Your task to perform on an android device: delete location history Image 0: 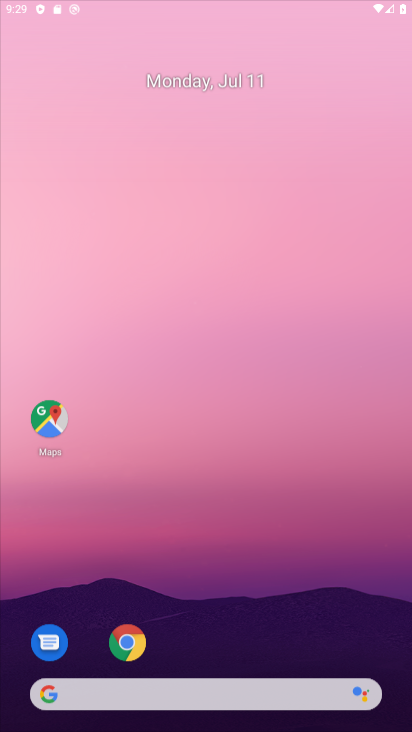
Step 0: press home button
Your task to perform on an android device: delete location history Image 1: 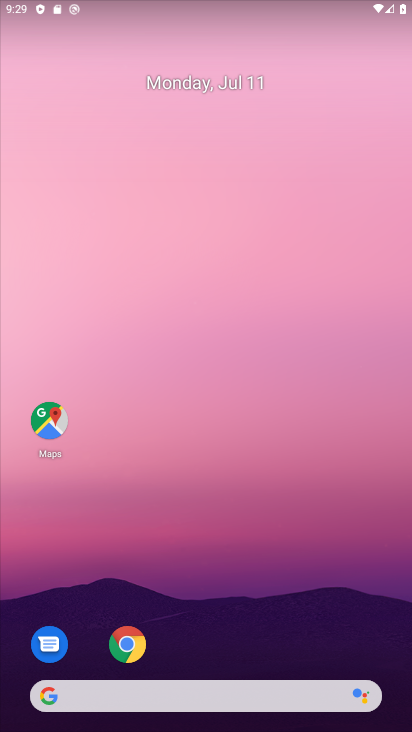
Step 1: click (48, 413)
Your task to perform on an android device: delete location history Image 2: 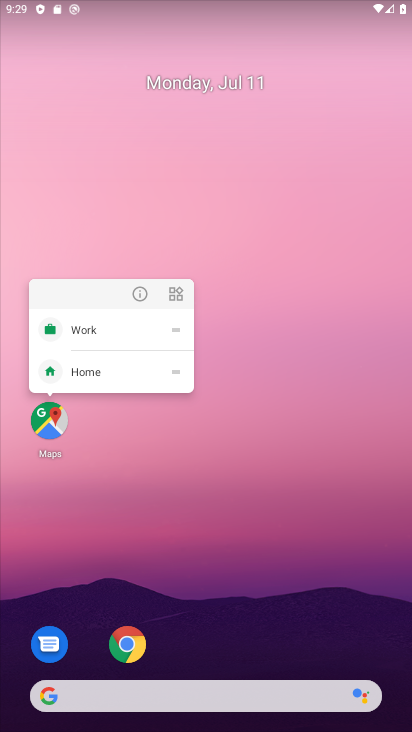
Step 2: click (48, 413)
Your task to perform on an android device: delete location history Image 3: 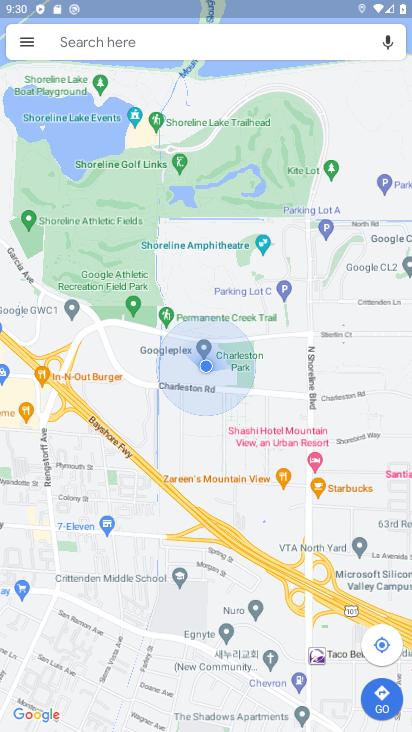
Step 3: click (18, 36)
Your task to perform on an android device: delete location history Image 4: 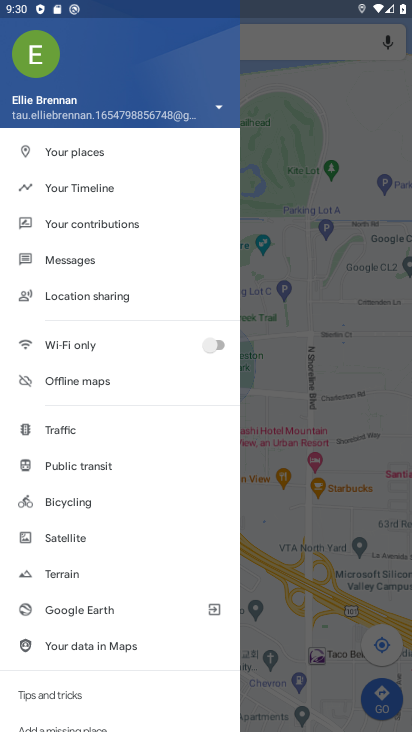
Step 4: click (115, 180)
Your task to perform on an android device: delete location history Image 5: 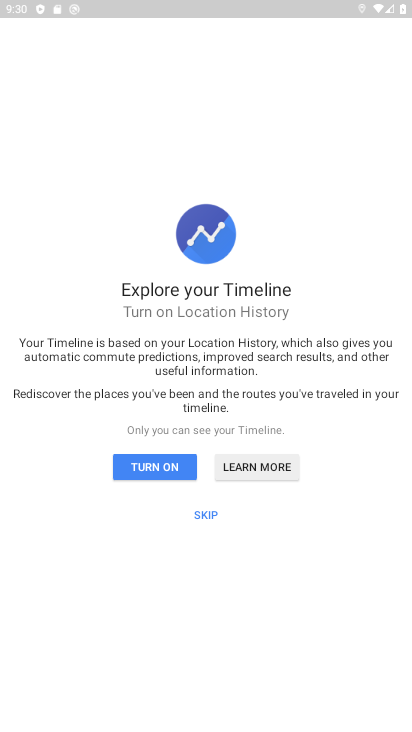
Step 5: click (159, 467)
Your task to perform on an android device: delete location history Image 6: 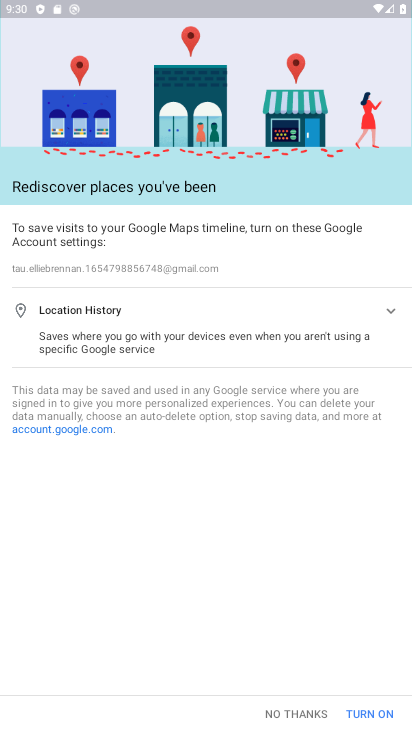
Step 6: click (377, 709)
Your task to perform on an android device: delete location history Image 7: 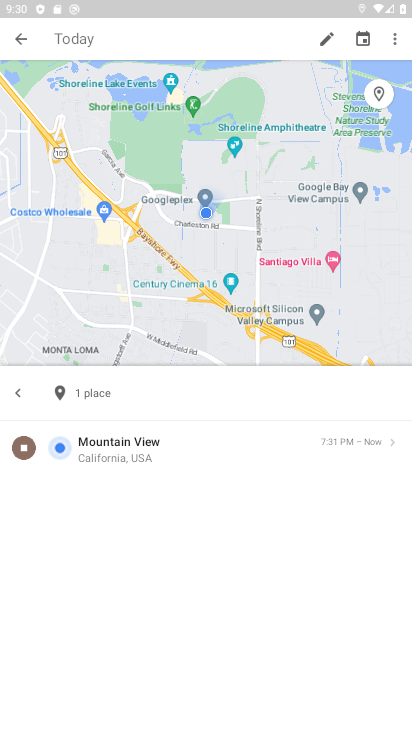
Step 7: click (400, 35)
Your task to perform on an android device: delete location history Image 8: 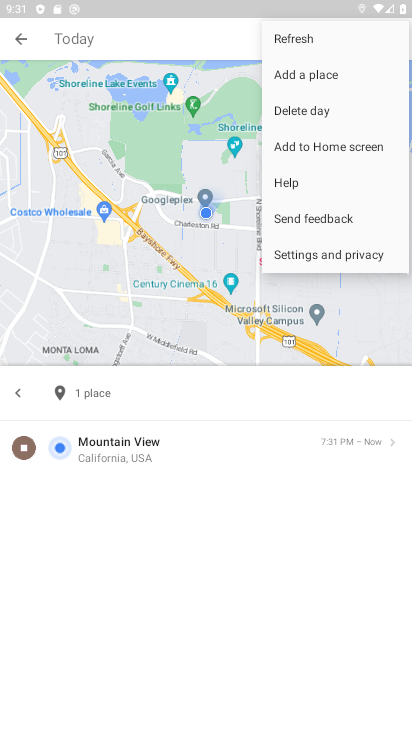
Step 8: click (343, 250)
Your task to perform on an android device: delete location history Image 9: 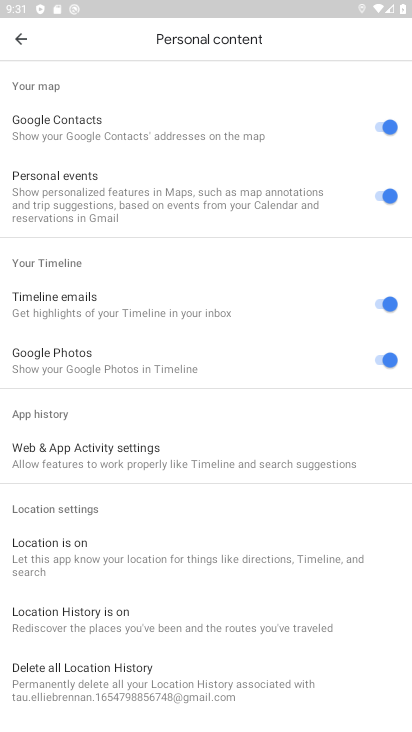
Step 9: click (124, 685)
Your task to perform on an android device: delete location history Image 10: 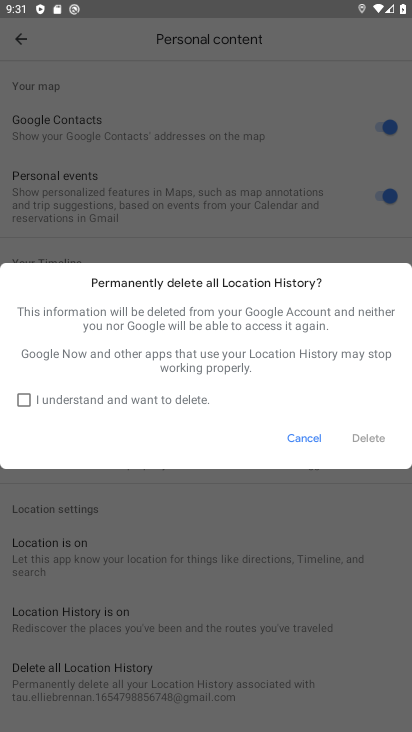
Step 10: click (18, 394)
Your task to perform on an android device: delete location history Image 11: 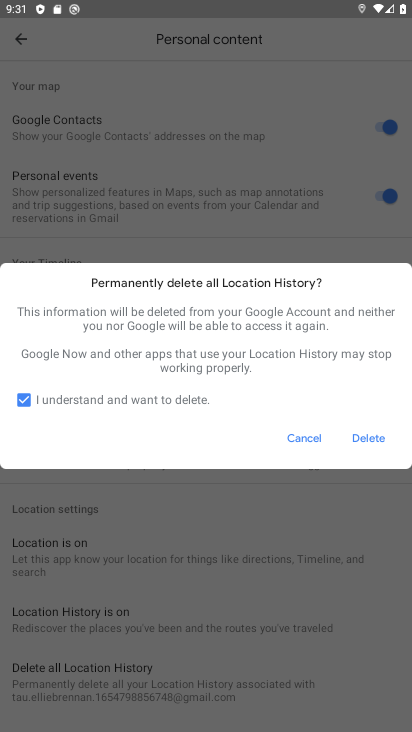
Step 11: click (367, 436)
Your task to perform on an android device: delete location history Image 12: 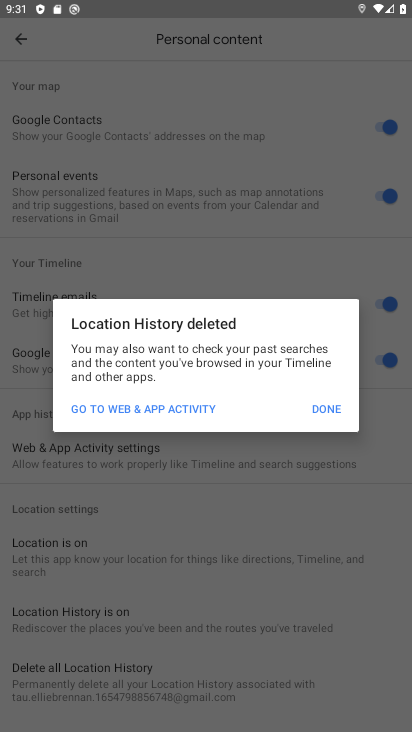
Step 12: click (322, 407)
Your task to perform on an android device: delete location history Image 13: 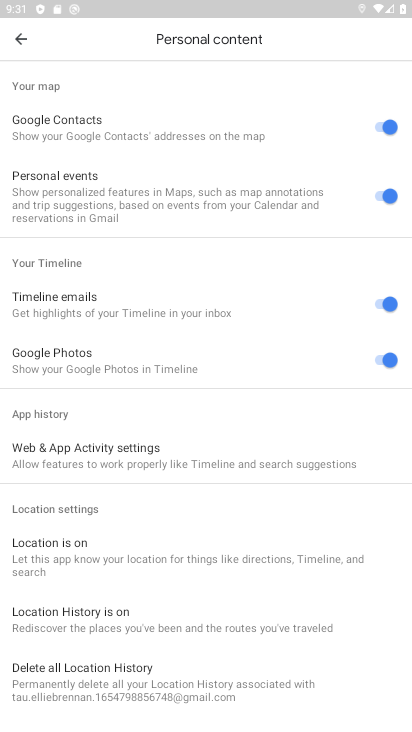
Step 13: task complete